Your task to perform on an android device: Go to wifi settings Image 0: 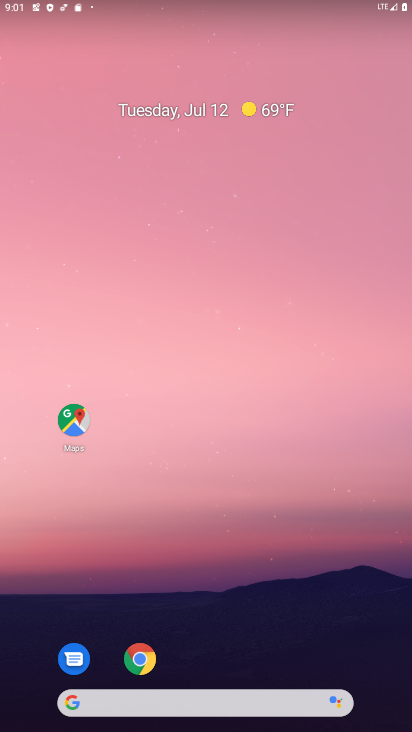
Step 0: drag from (251, 690) to (252, 163)
Your task to perform on an android device: Go to wifi settings Image 1: 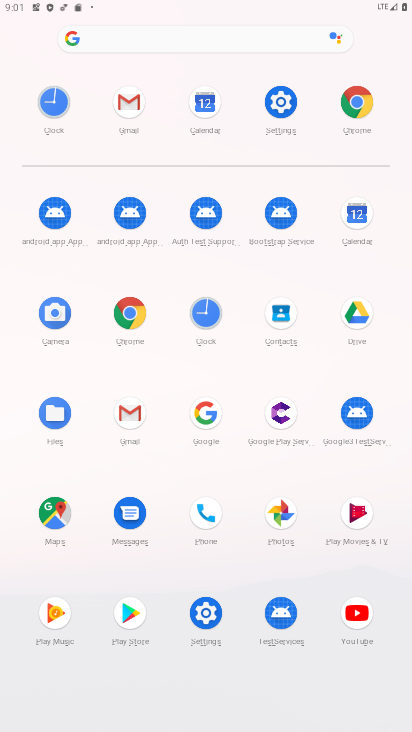
Step 1: click (281, 109)
Your task to perform on an android device: Go to wifi settings Image 2: 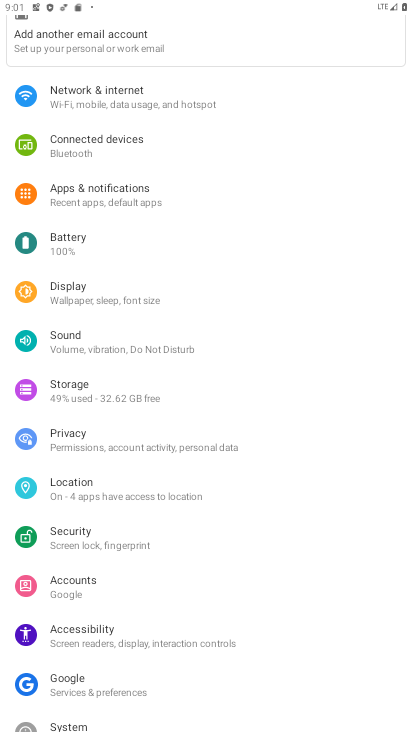
Step 2: click (118, 97)
Your task to perform on an android device: Go to wifi settings Image 3: 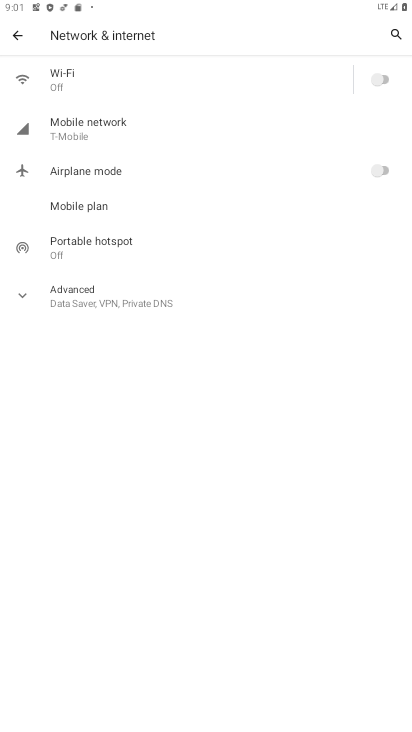
Step 3: click (61, 74)
Your task to perform on an android device: Go to wifi settings Image 4: 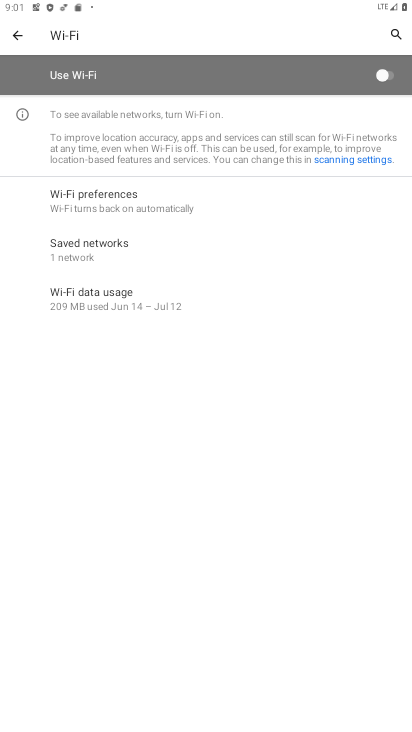
Step 4: task complete